Your task to perform on an android device: What's the price of the Vizio TV? Image 0: 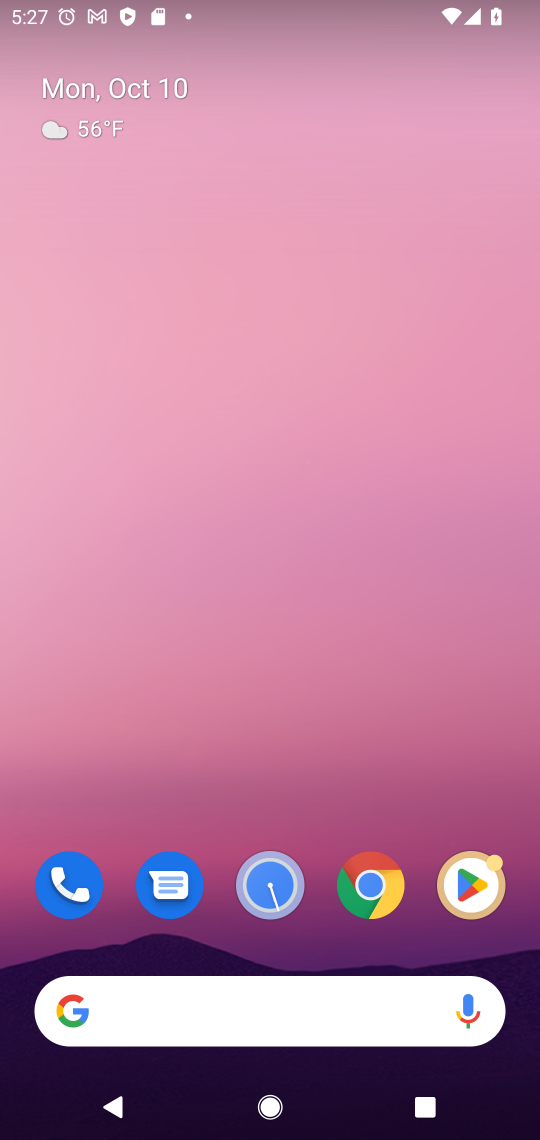
Step 0: click (339, 1002)
Your task to perform on an android device: What's the price of the Vizio TV? Image 1: 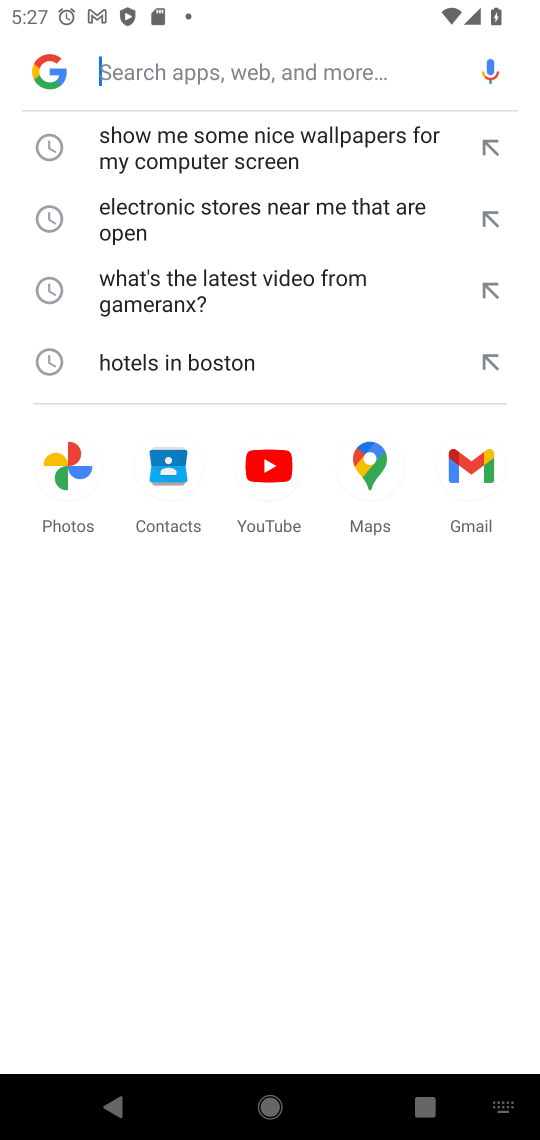
Step 1: type "What's the price of the Vizio TV?"
Your task to perform on an android device: What's the price of the Vizio TV? Image 2: 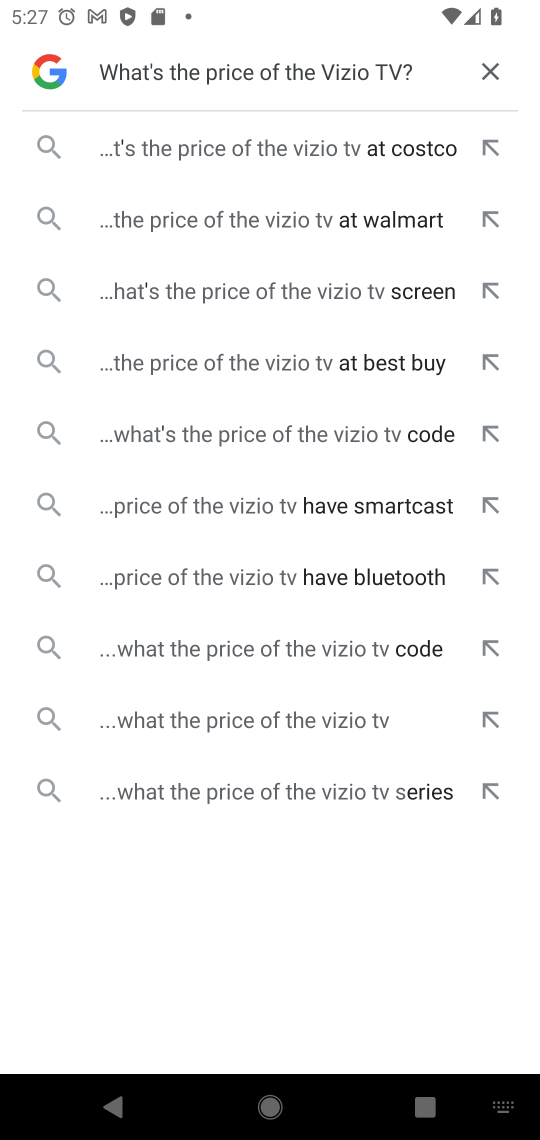
Step 2: click (181, 707)
Your task to perform on an android device: What's the price of the Vizio TV? Image 3: 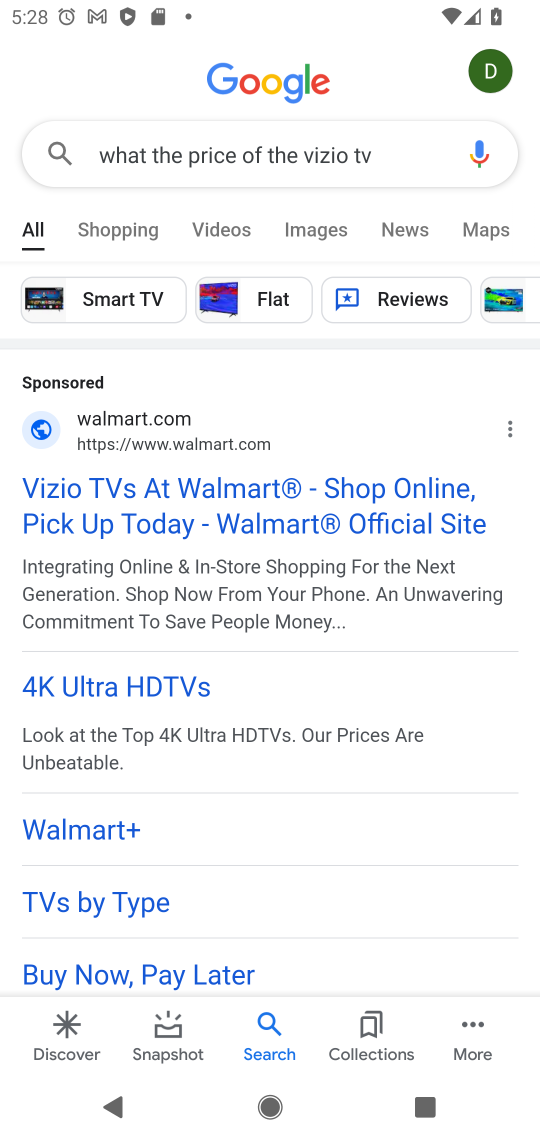
Step 3: click (192, 485)
Your task to perform on an android device: What's the price of the Vizio TV? Image 4: 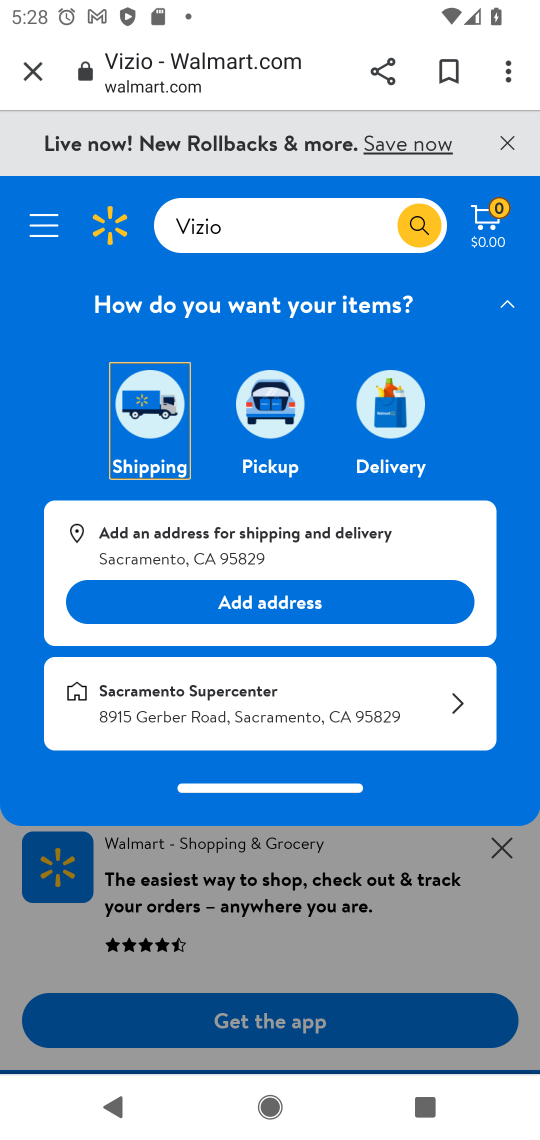
Step 4: task complete